Your task to perform on an android device: add a contact Image 0: 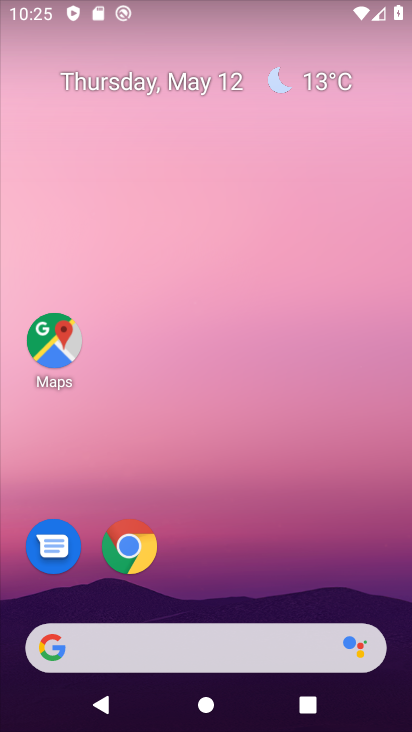
Step 0: drag from (192, 677) to (289, 220)
Your task to perform on an android device: add a contact Image 1: 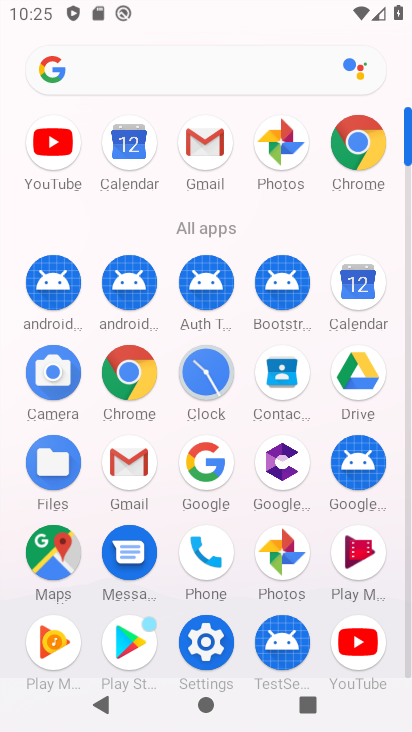
Step 1: click (222, 563)
Your task to perform on an android device: add a contact Image 2: 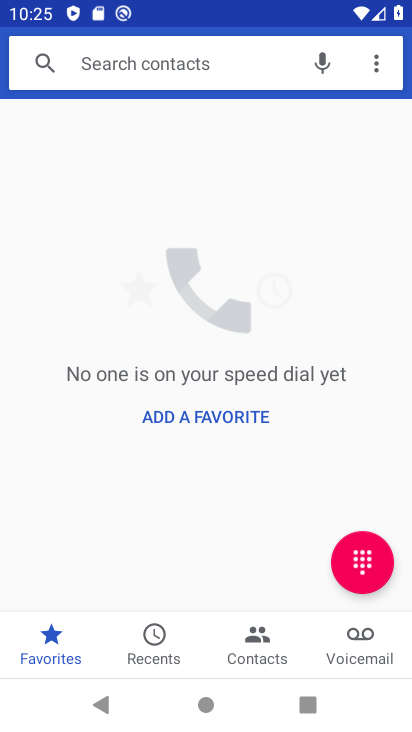
Step 2: click (241, 659)
Your task to perform on an android device: add a contact Image 3: 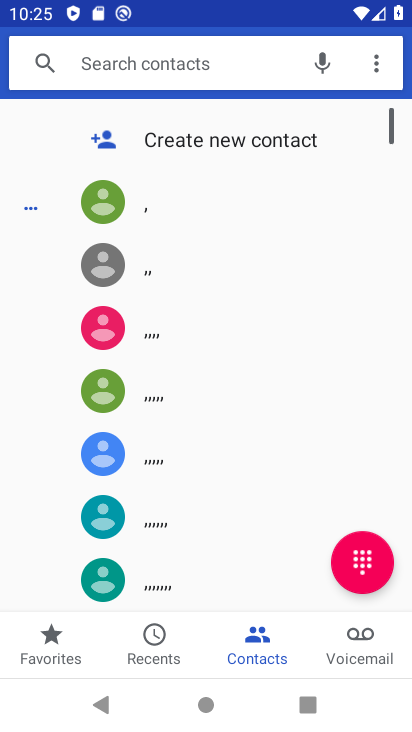
Step 3: click (194, 143)
Your task to perform on an android device: add a contact Image 4: 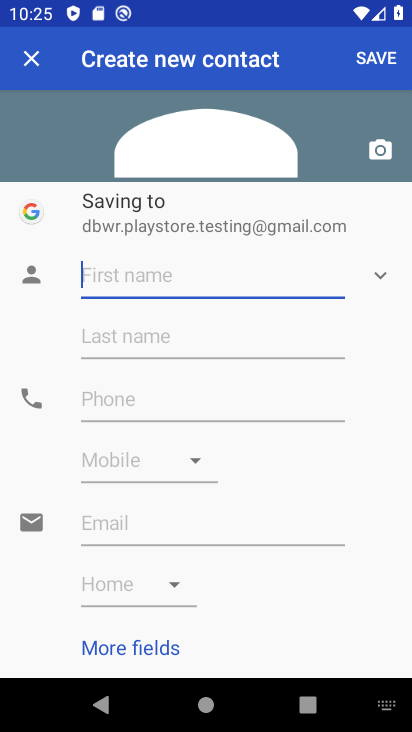
Step 4: click (170, 269)
Your task to perform on an android device: add a contact Image 5: 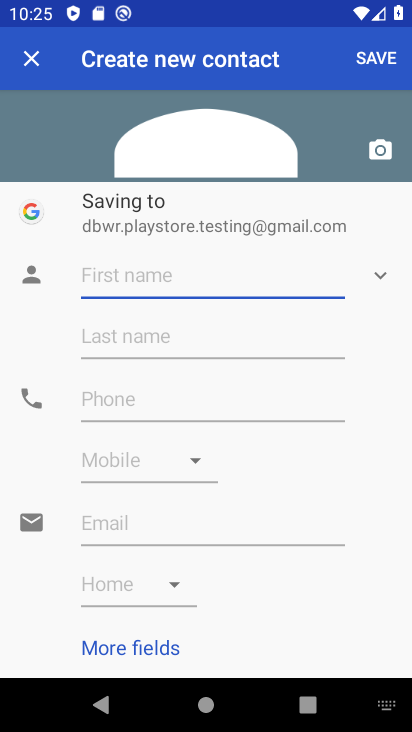
Step 5: click (385, 701)
Your task to perform on an android device: add a contact Image 6: 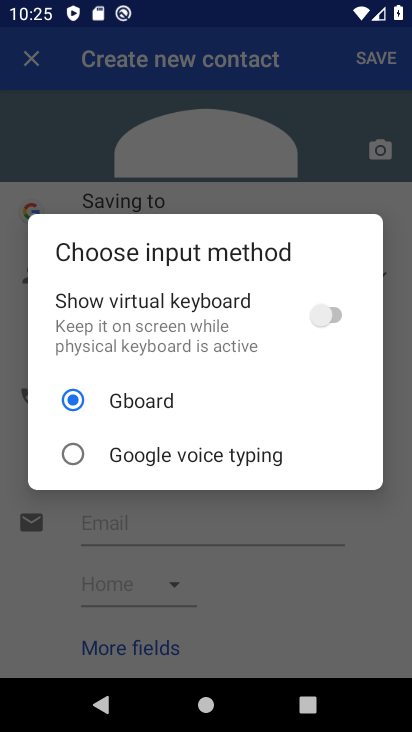
Step 6: click (325, 316)
Your task to perform on an android device: add a contact Image 7: 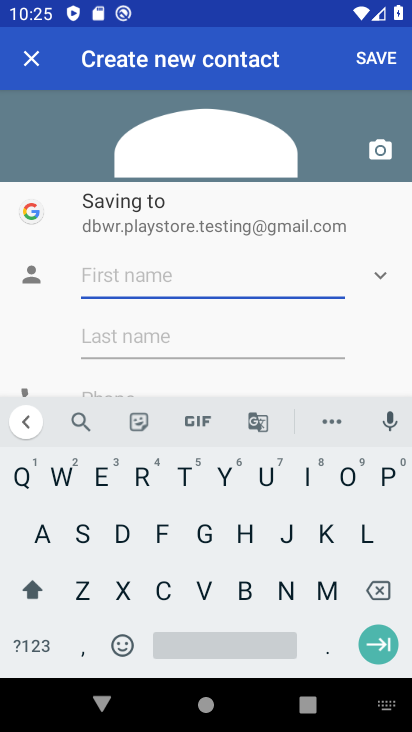
Step 7: click (207, 590)
Your task to perform on an android device: add a contact Image 8: 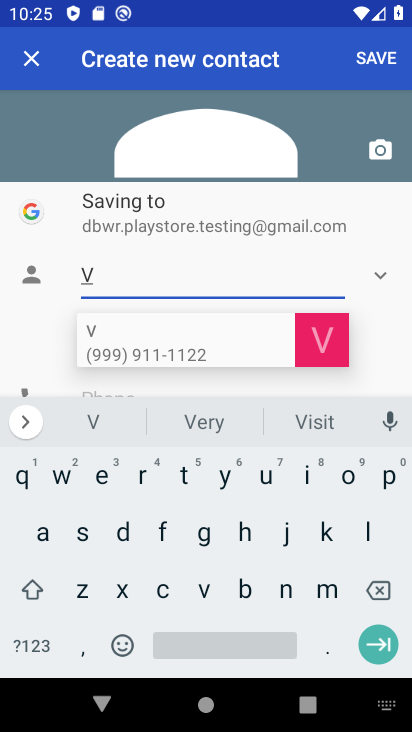
Step 8: click (354, 485)
Your task to perform on an android device: add a contact Image 9: 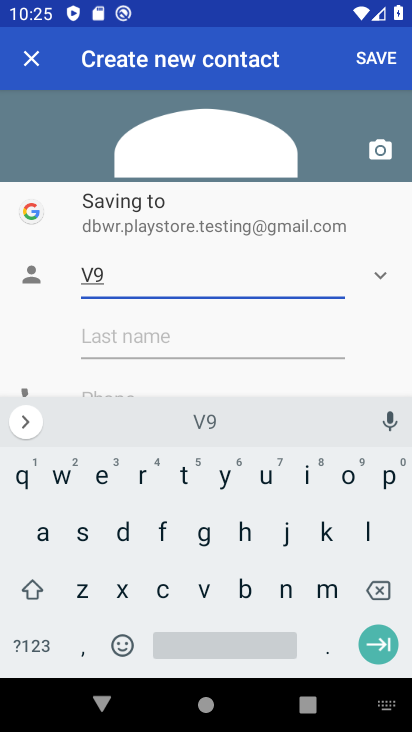
Step 9: click (177, 479)
Your task to perform on an android device: add a contact Image 10: 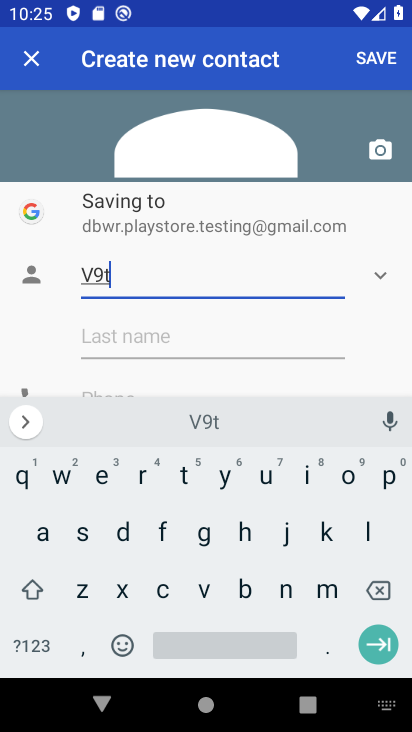
Step 10: click (137, 385)
Your task to perform on an android device: add a contact Image 11: 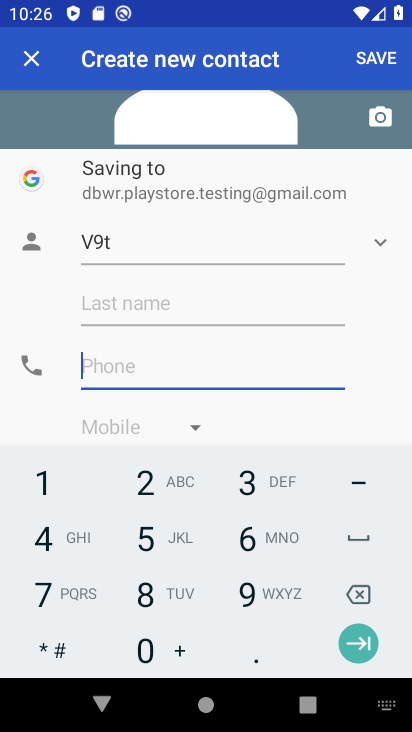
Step 11: click (145, 565)
Your task to perform on an android device: add a contact Image 12: 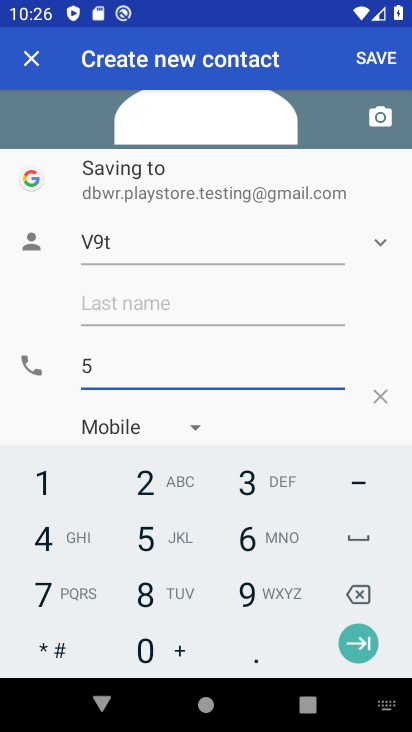
Step 12: click (40, 534)
Your task to perform on an android device: add a contact Image 13: 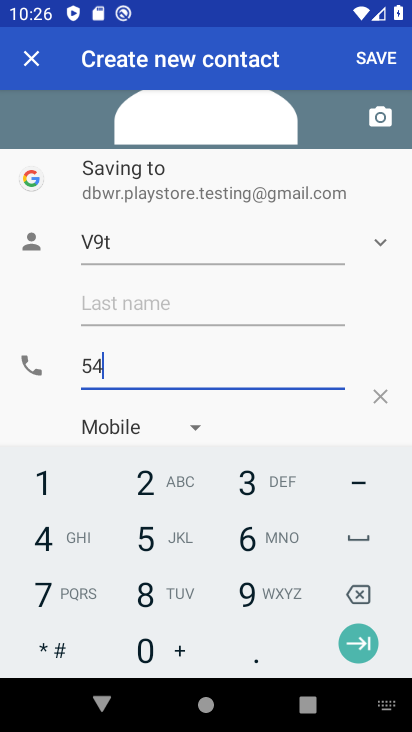
Step 13: click (79, 579)
Your task to perform on an android device: add a contact Image 14: 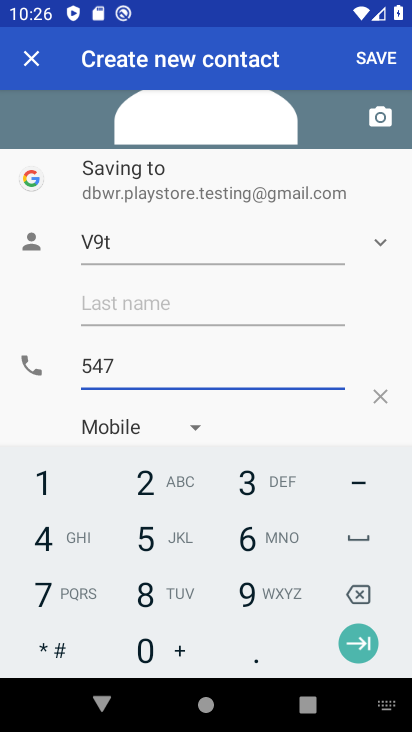
Step 14: click (157, 565)
Your task to perform on an android device: add a contact Image 15: 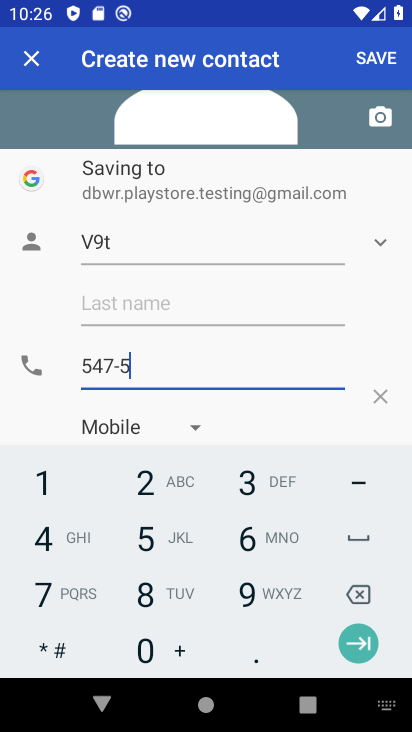
Step 15: click (172, 536)
Your task to perform on an android device: add a contact Image 16: 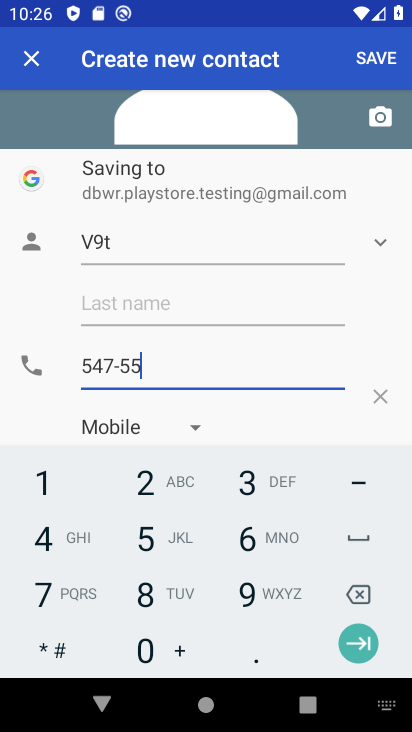
Step 16: click (222, 529)
Your task to perform on an android device: add a contact Image 17: 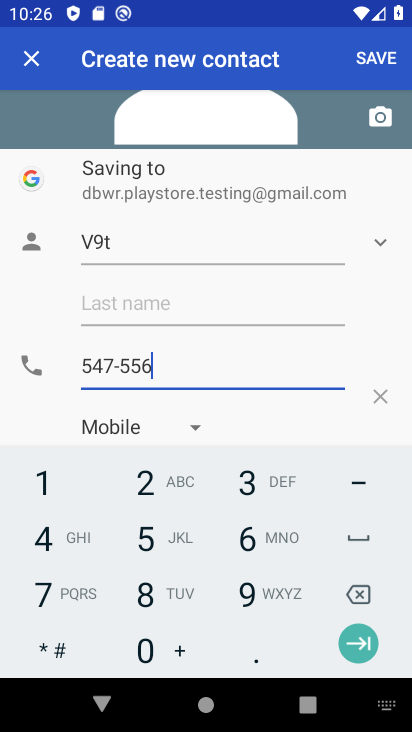
Step 17: click (189, 523)
Your task to perform on an android device: add a contact Image 18: 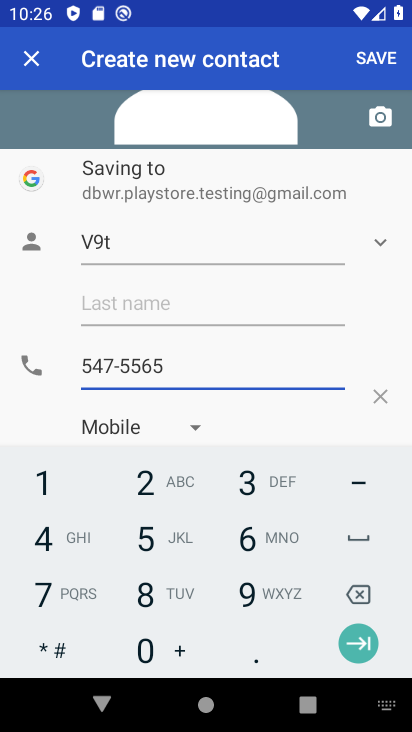
Step 18: click (380, 48)
Your task to perform on an android device: add a contact Image 19: 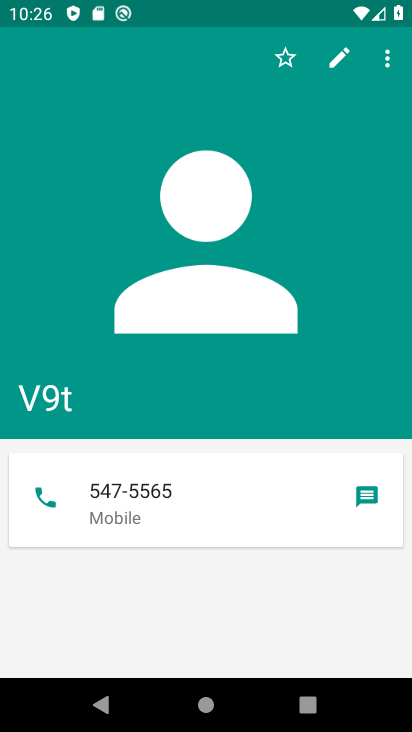
Step 19: task complete